Your task to perform on an android device: remove spam from my inbox in the gmail app Image 0: 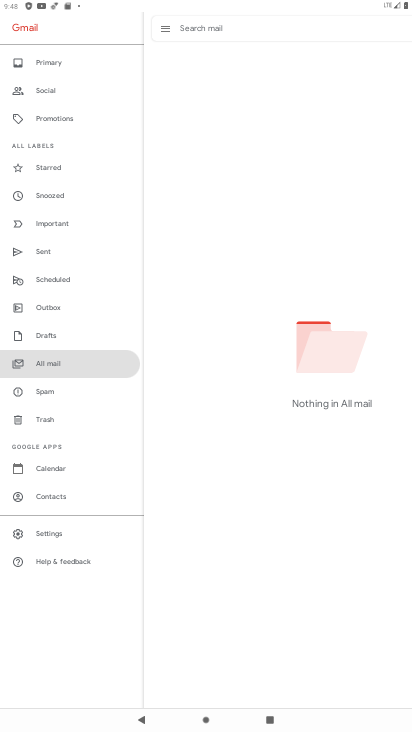
Step 0: click (28, 384)
Your task to perform on an android device: remove spam from my inbox in the gmail app Image 1: 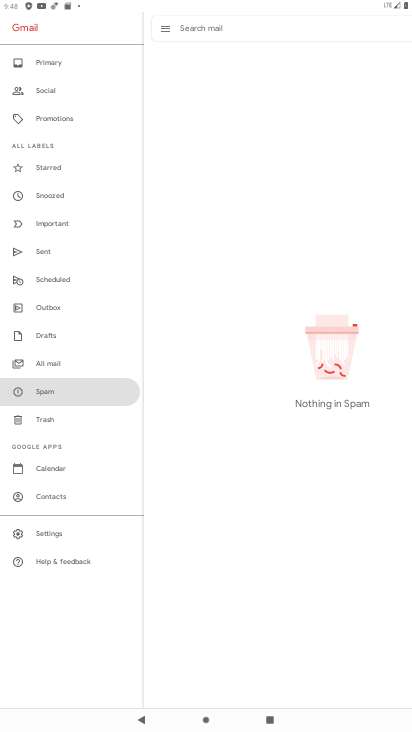
Step 1: task complete